Your task to perform on an android device: Open Amazon Image 0: 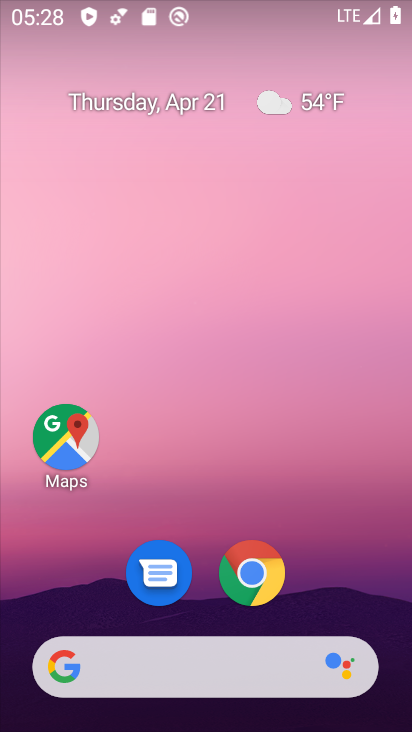
Step 0: click (251, 572)
Your task to perform on an android device: Open Amazon Image 1: 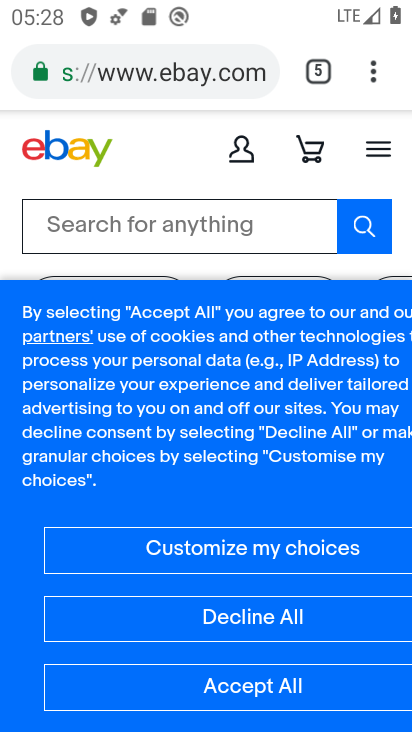
Step 1: click (161, 70)
Your task to perform on an android device: Open Amazon Image 2: 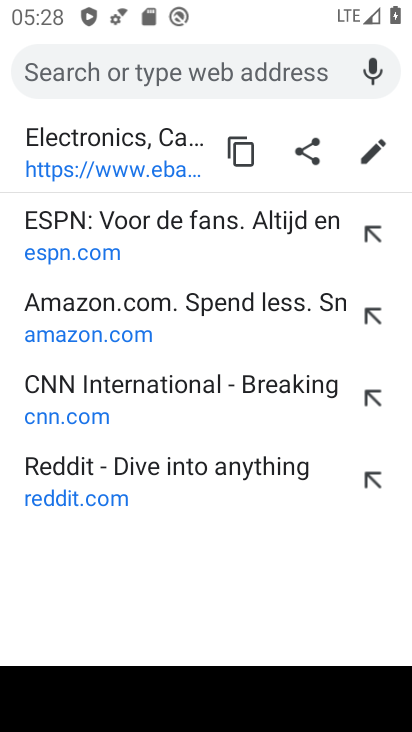
Step 2: type "amazon"
Your task to perform on an android device: Open Amazon Image 3: 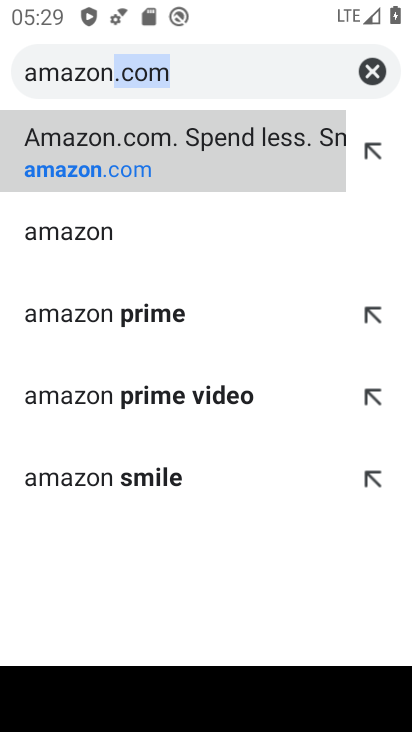
Step 3: click (137, 162)
Your task to perform on an android device: Open Amazon Image 4: 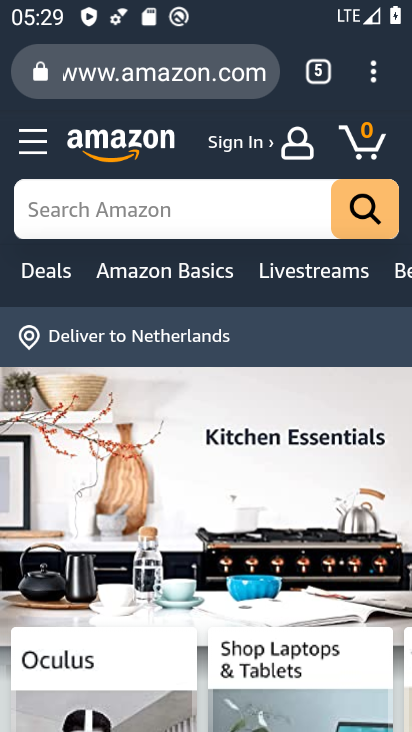
Step 4: task complete